Your task to perform on an android device: turn off notifications in google photos Image 0: 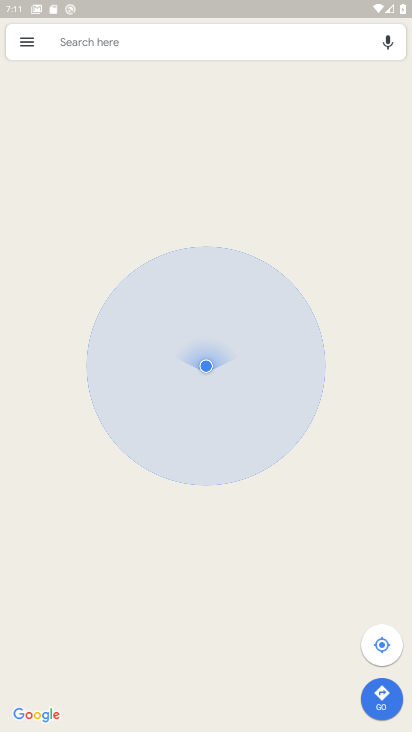
Step 0: press home button
Your task to perform on an android device: turn off notifications in google photos Image 1: 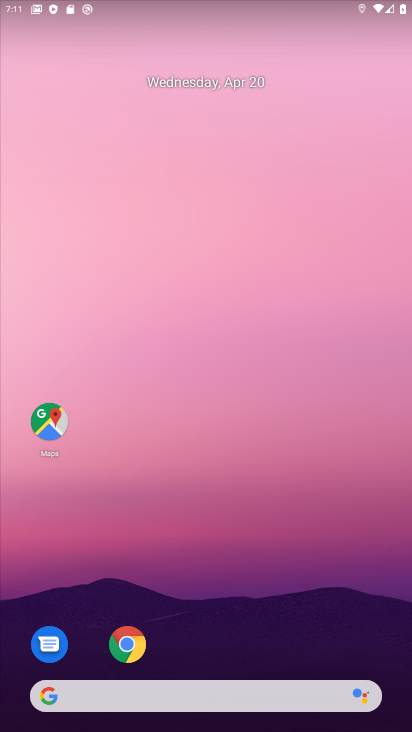
Step 1: drag from (288, 647) to (189, 117)
Your task to perform on an android device: turn off notifications in google photos Image 2: 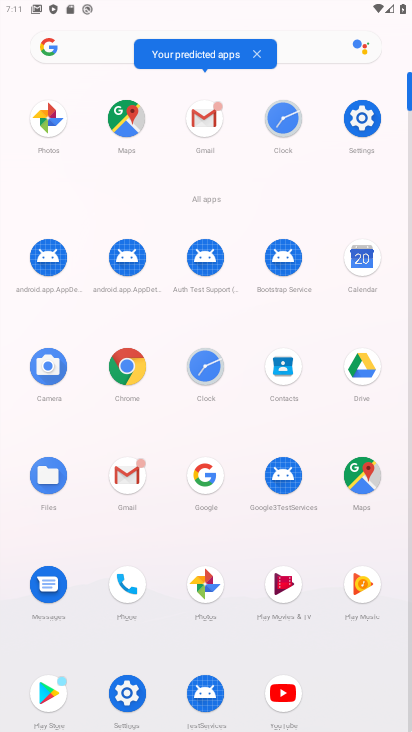
Step 2: click (197, 587)
Your task to perform on an android device: turn off notifications in google photos Image 3: 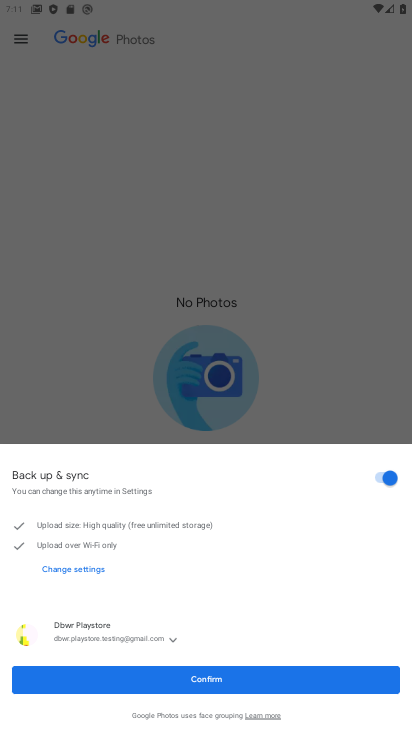
Step 3: click (216, 685)
Your task to perform on an android device: turn off notifications in google photos Image 4: 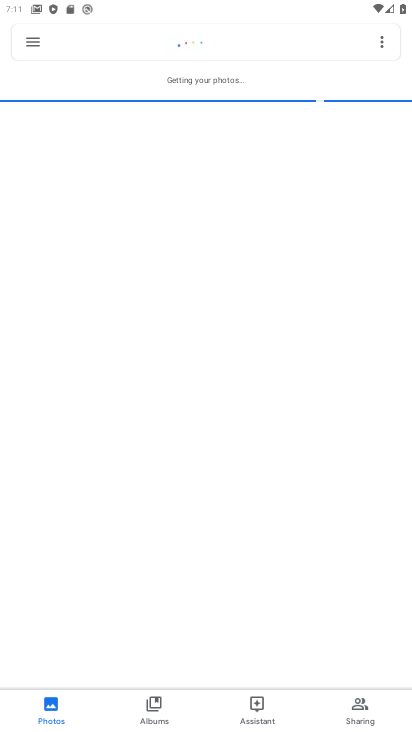
Step 4: click (30, 39)
Your task to perform on an android device: turn off notifications in google photos Image 5: 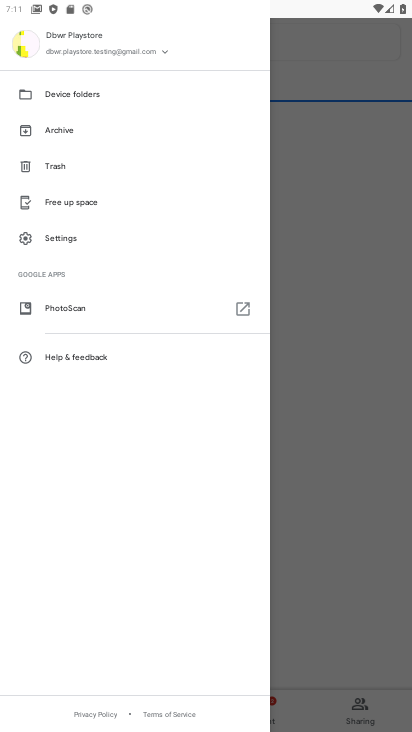
Step 5: click (79, 233)
Your task to perform on an android device: turn off notifications in google photos Image 6: 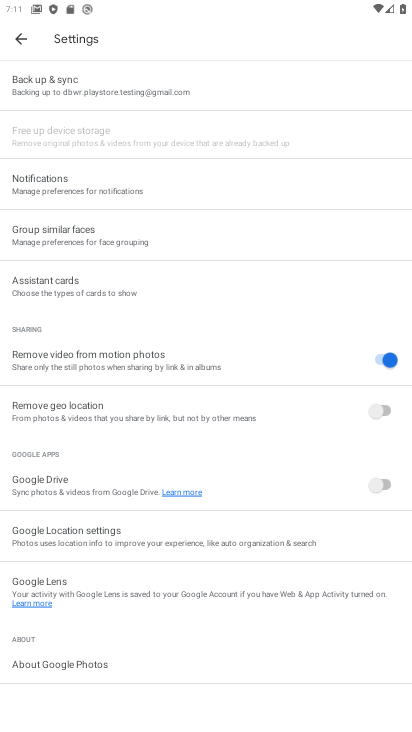
Step 6: click (104, 185)
Your task to perform on an android device: turn off notifications in google photos Image 7: 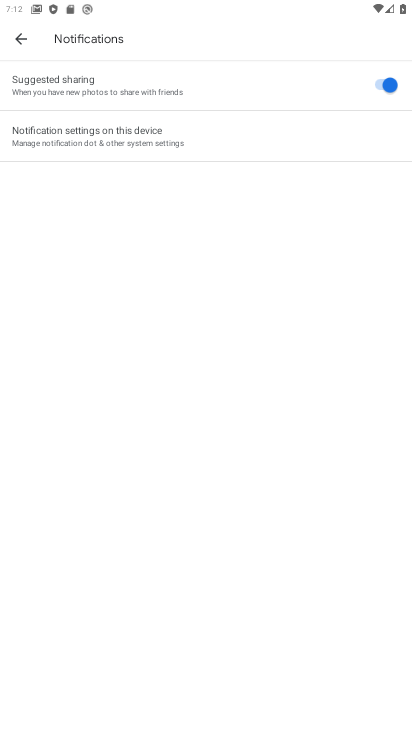
Step 7: click (336, 85)
Your task to perform on an android device: turn off notifications in google photos Image 8: 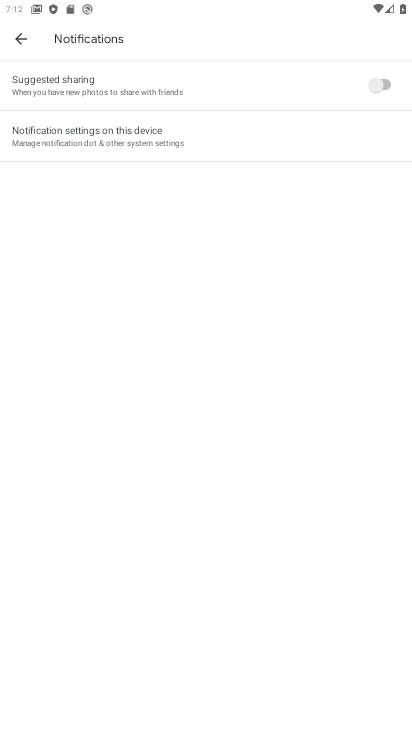
Step 8: task complete